Your task to perform on an android device: Go to privacy settings Image 0: 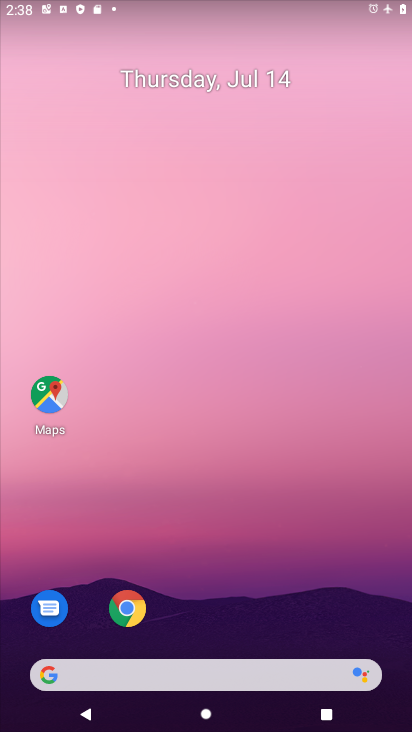
Step 0: drag from (369, 634) to (348, 83)
Your task to perform on an android device: Go to privacy settings Image 1: 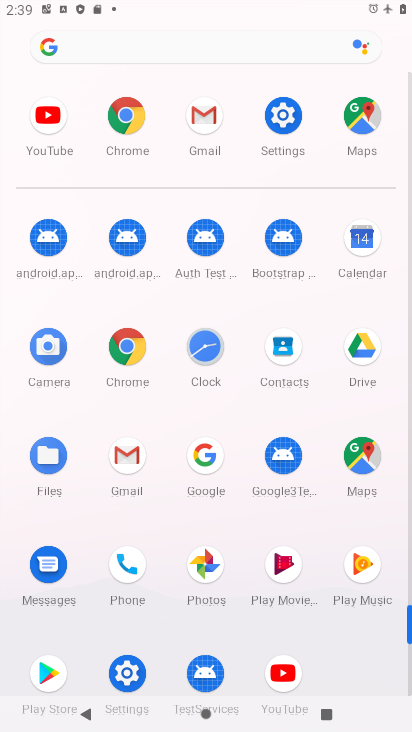
Step 1: click (122, 672)
Your task to perform on an android device: Go to privacy settings Image 2: 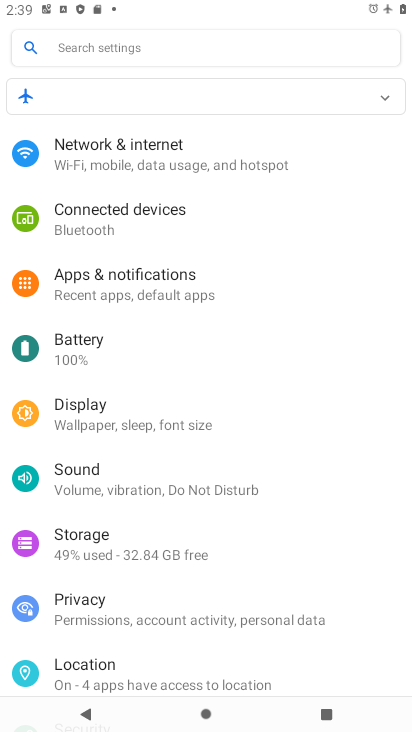
Step 2: drag from (311, 564) to (316, 263)
Your task to perform on an android device: Go to privacy settings Image 3: 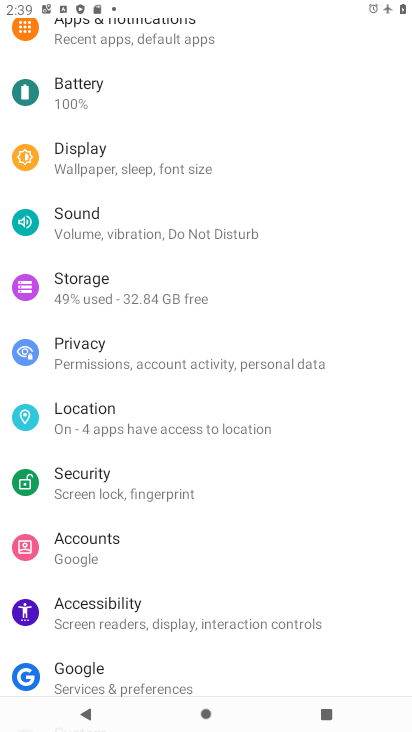
Step 3: click (82, 349)
Your task to perform on an android device: Go to privacy settings Image 4: 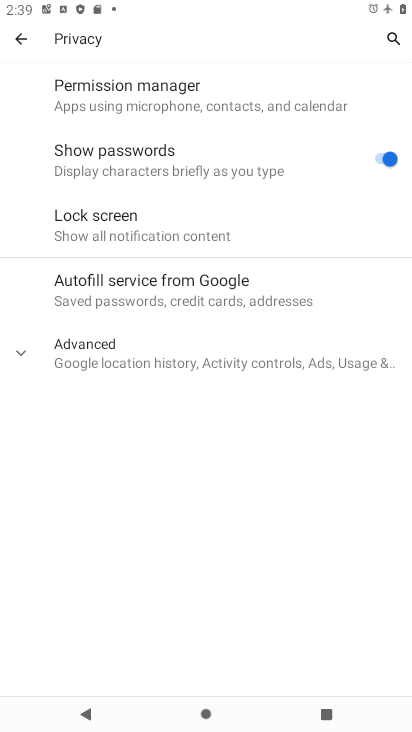
Step 4: click (27, 357)
Your task to perform on an android device: Go to privacy settings Image 5: 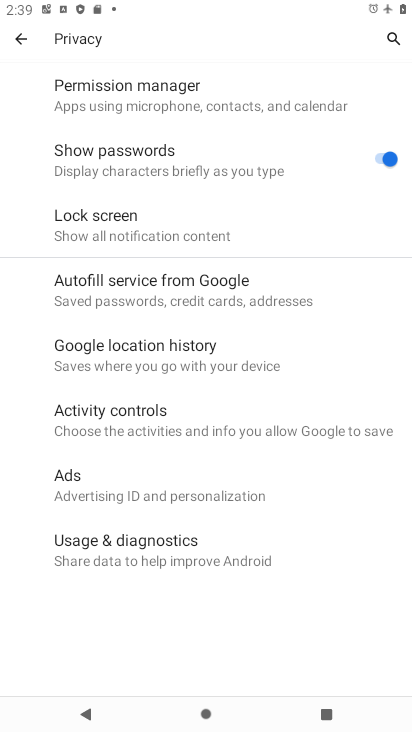
Step 5: task complete